Your task to perform on an android device: all mails in gmail Image 0: 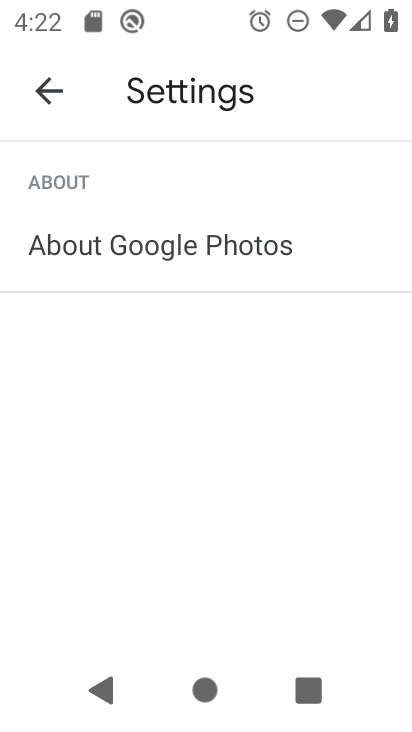
Step 0: press home button
Your task to perform on an android device: all mails in gmail Image 1: 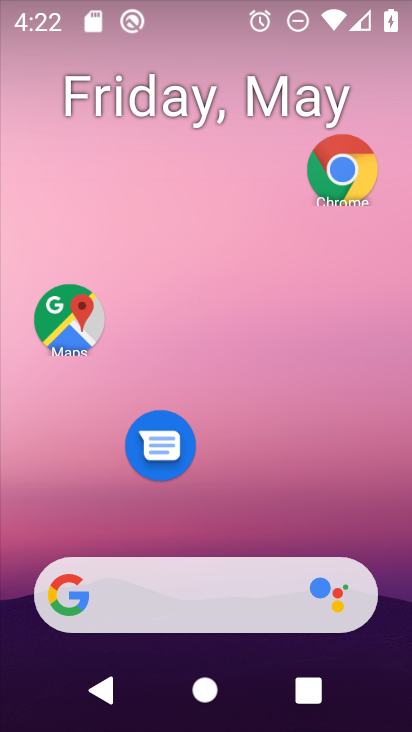
Step 1: drag from (259, 520) to (409, 296)
Your task to perform on an android device: all mails in gmail Image 2: 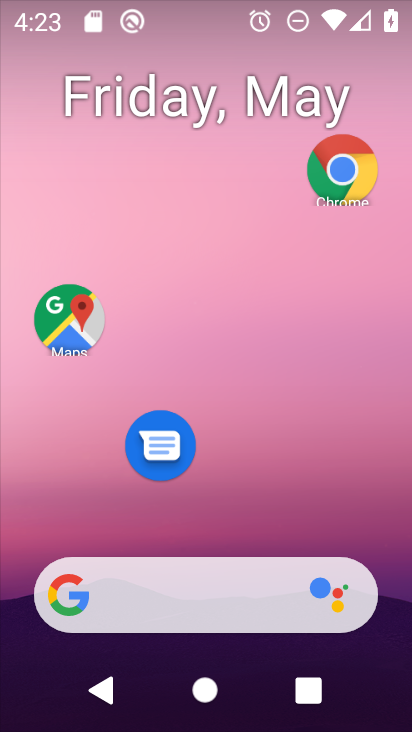
Step 2: click (261, 226)
Your task to perform on an android device: all mails in gmail Image 3: 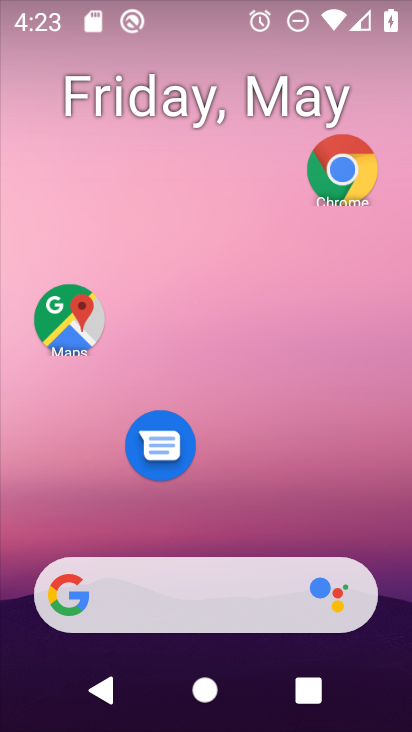
Step 3: drag from (284, 485) to (306, 9)
Your task to perform on an android device: all mails in gmail Image 4: 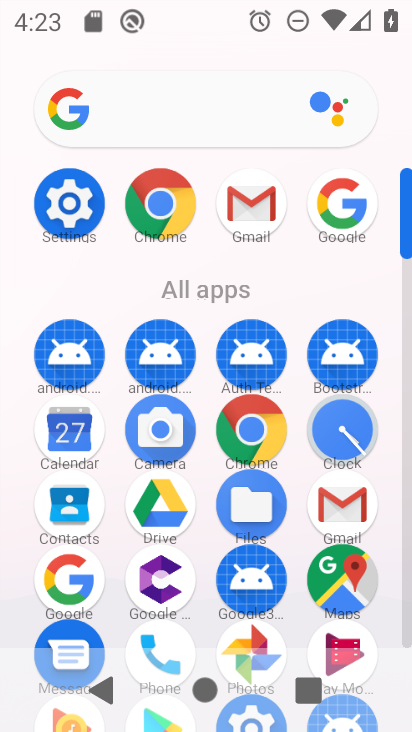
Step 4: click (247, 205)
Your task to perform on an android device: all mails in gmail Image 5: 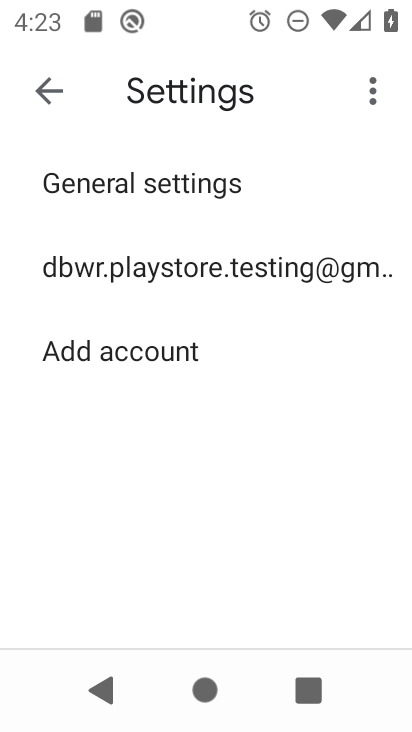
Step 5: click (38, 89)
Your task to perform on an android device: all mails in gmail Image 6: 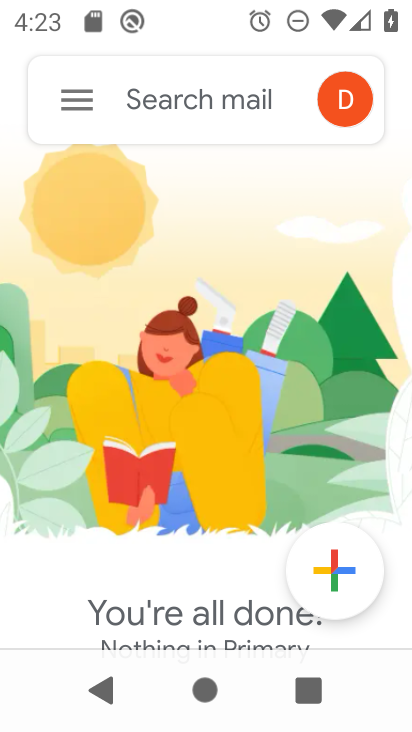
Step 6: click (87, 117)
Your task to perform on an android device: all mails in gmail Image 7: 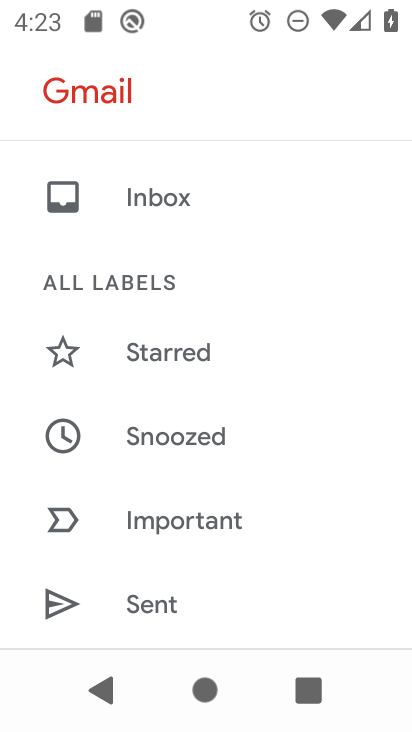
Step 7: drag from (178, 579) to (292, 102)
Your task to perform on an android device: all mails in gmail Image 8: 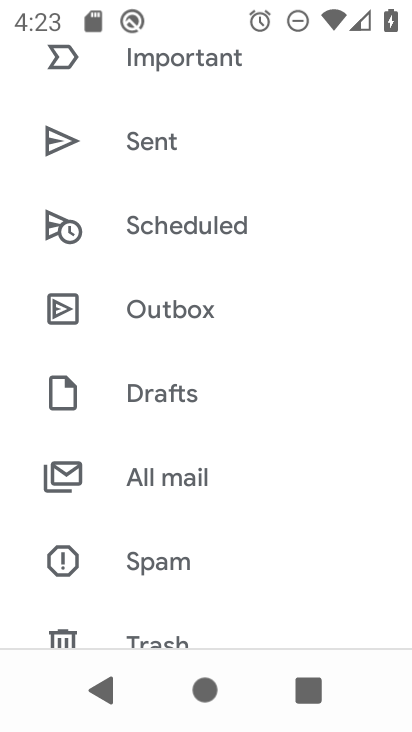
Step 8: click (200, 487)
Your task to perform on an android device: all mails in gmail Image 9: 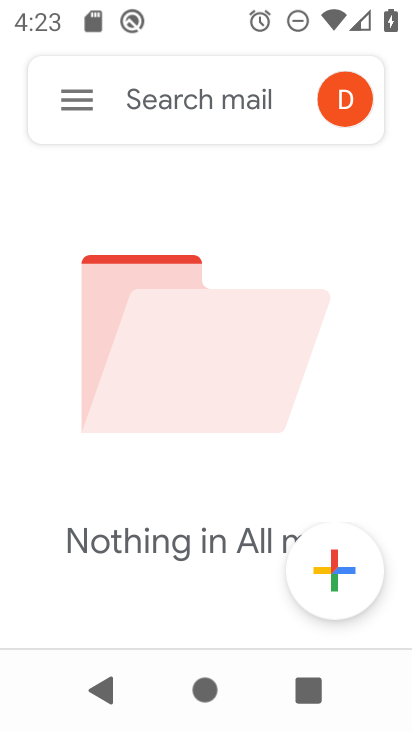
Step 9: task complete